Your task to perform on an android device: Open maps Image 0: 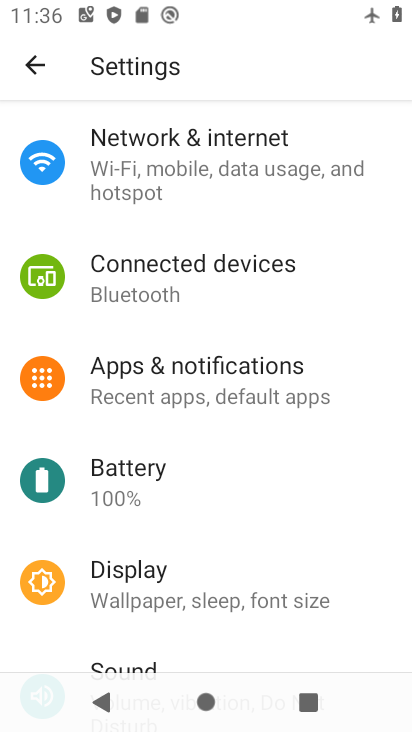
Step 0: press home button
Your task to perform on an android device: Open maps Image 1: 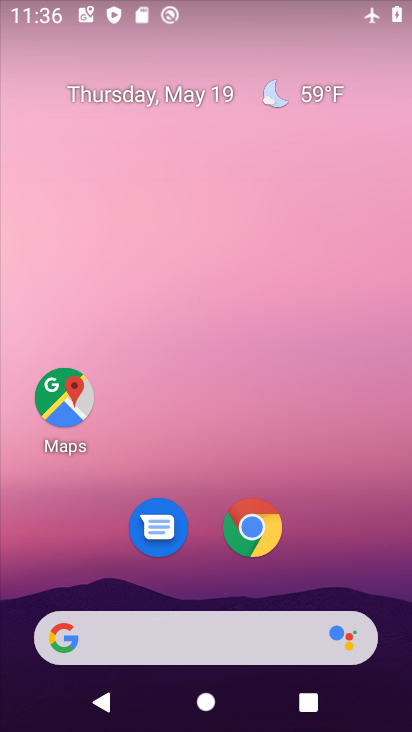
Step 1: click (78, 415)
Your task to perform on an android device: Open maps Image 2: 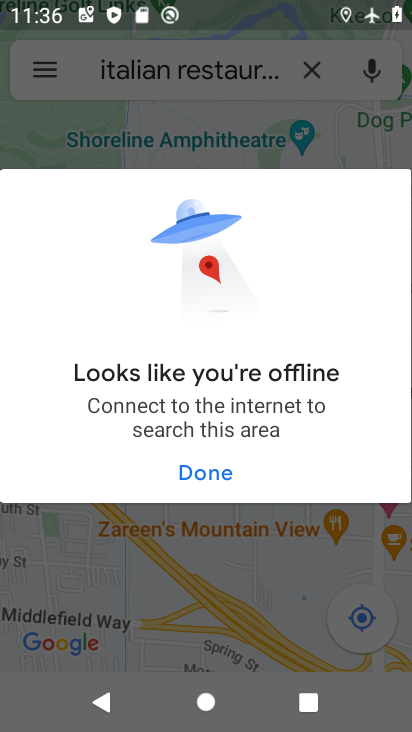
Step 2: click (199, 467)
Your task to perform on an android device: Open maps Image 3: 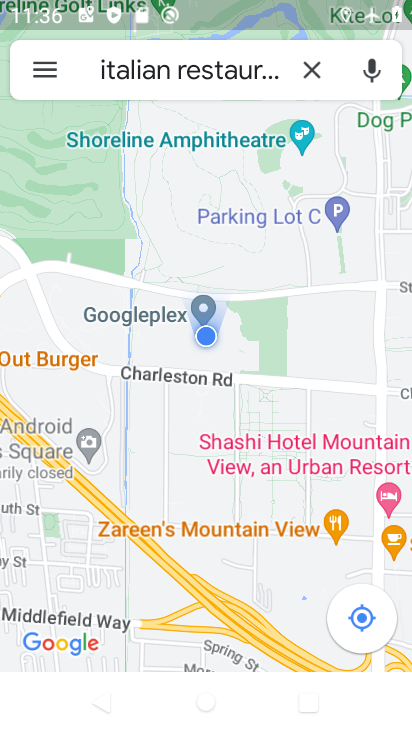
Step 3: task complete